Your task to perform on an android device: read, delete, or share a saved page in the chrome app Image 0: 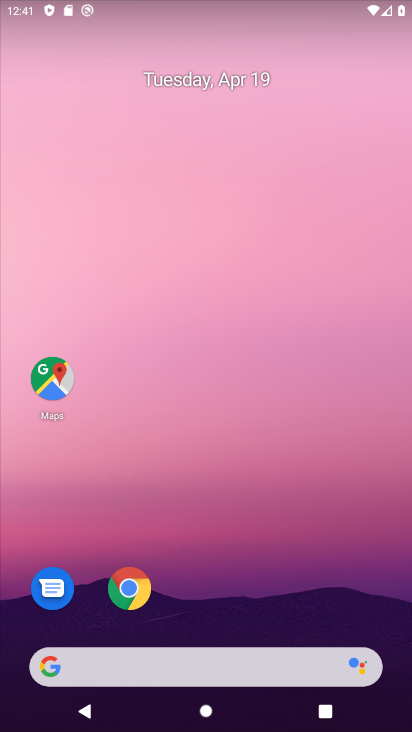
Step 0: drag from (349, 556) to (336, 58)
Your task to perform on an android device: read, delete, or share a saved page in the chrome app Image 1: 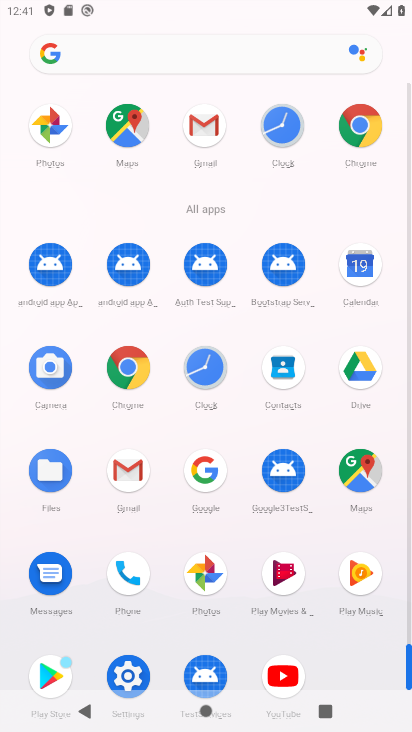
Step 1: click (366, 123)
Your task to perform on an android device: read, delete, or share a saved page in the chrome app Image 2: 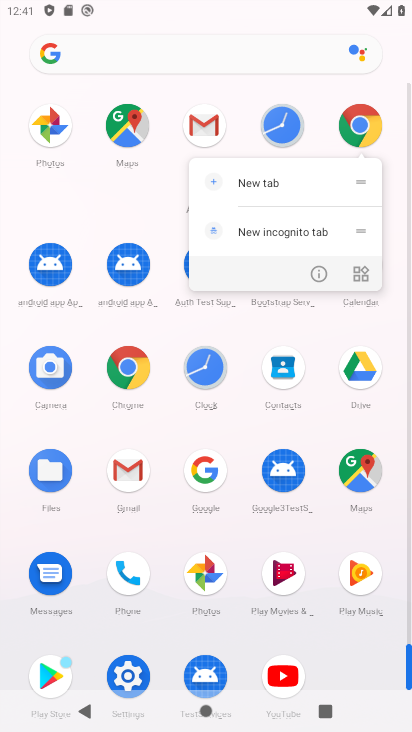
Step 2: click (366, 124)
Your task to perform on an android device: read, delete, or share a saved page in the chrome app Image 3: 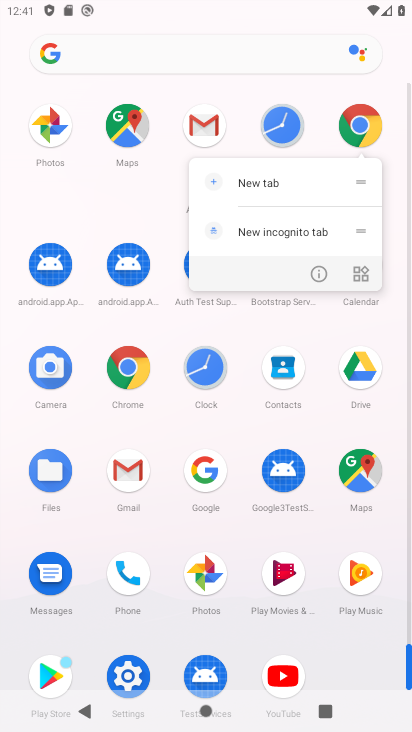
Step 3: click (366, 123)
Your task to perform on an android device: read, delete, or share a saved page in the chrome app Image 4: 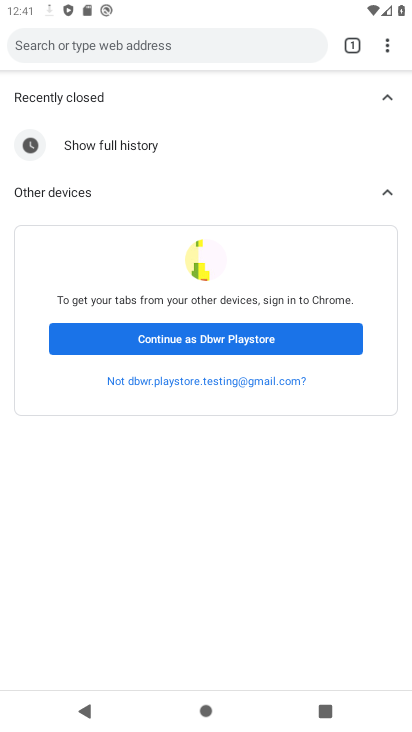
Step 4: drag from (382, 49) to (262, 307)
Your task to perform on an android device: read, delete, or share a saved page in the chrome app Image 5: 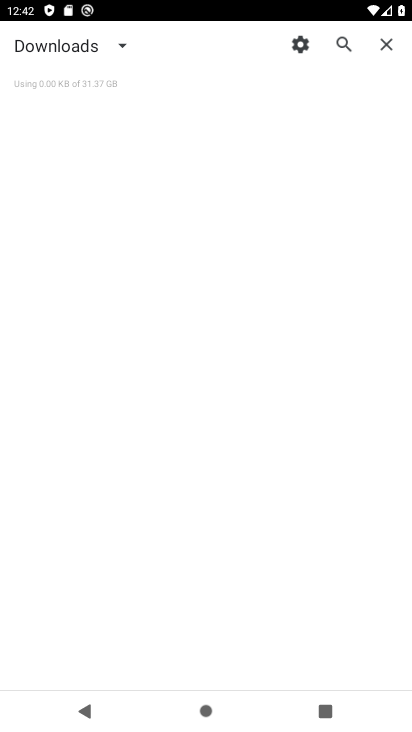
Step 5: click (124, 36)
Your task to perform on an android device: read, delete, or share a saved page in the chrome app Image 6: 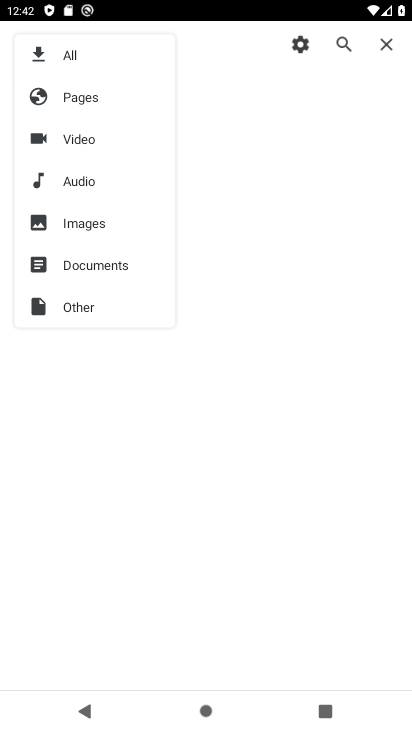
Step 6: click (88, 88)
Your task to perform on an android device: read, delete, or share a saved page in the chrome app Image 7: 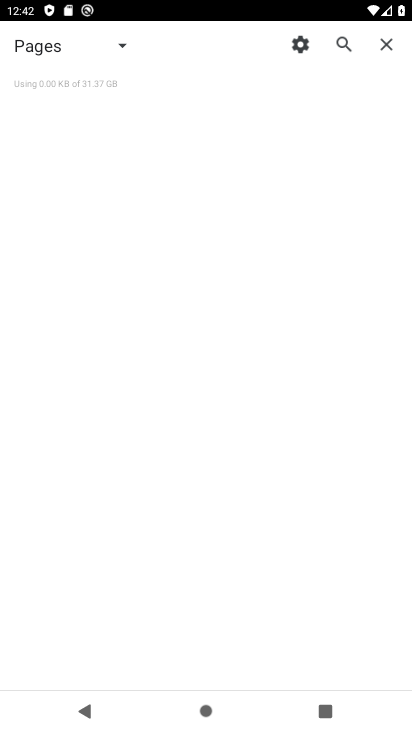
Step 7: task complete